Your task to perform on an android device: create a new album in the google photos Image 0: 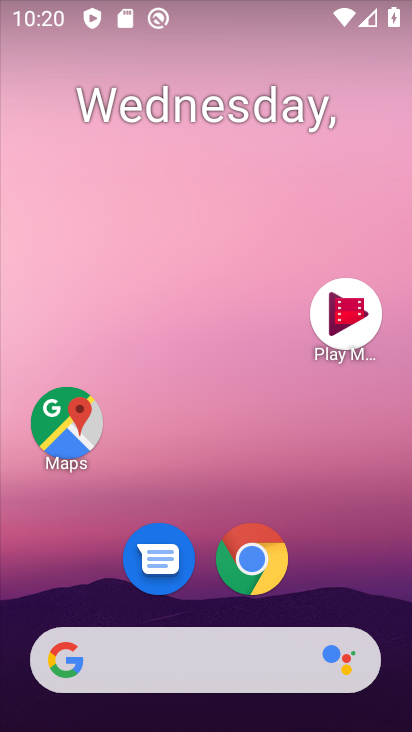
Step 0: drag from (331, 581) to (269, 146)
Your task to perform on an android device: create a new album in the google photos Image 1: 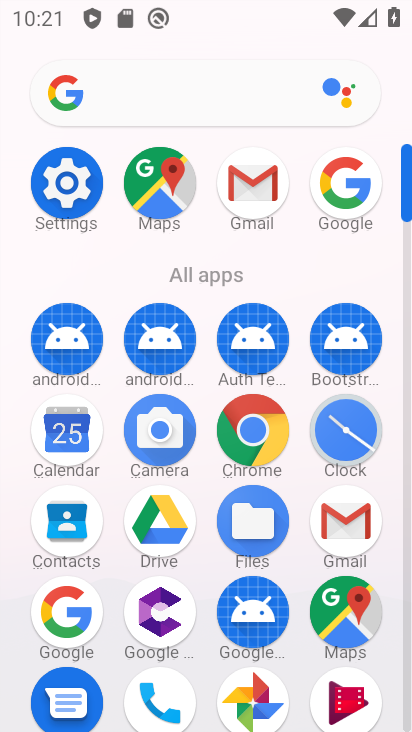
Step 1: click (259, 707)
Your task to perform on an android device: create a new album in the google photos Image 2: 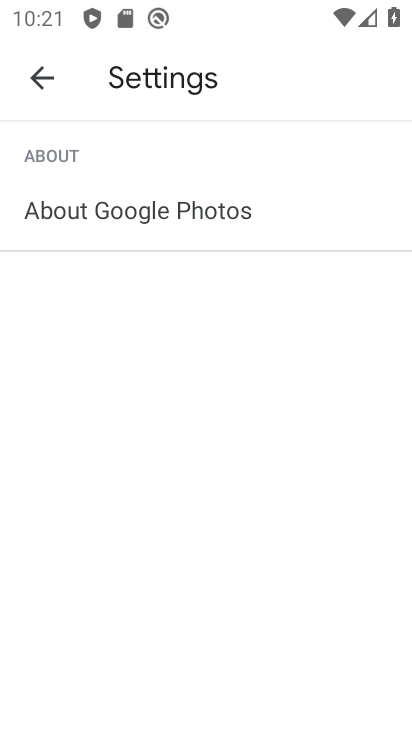
Step 2: click (37, 73)
Your task to perform on an android device: create a new album in the google photos Image 3: 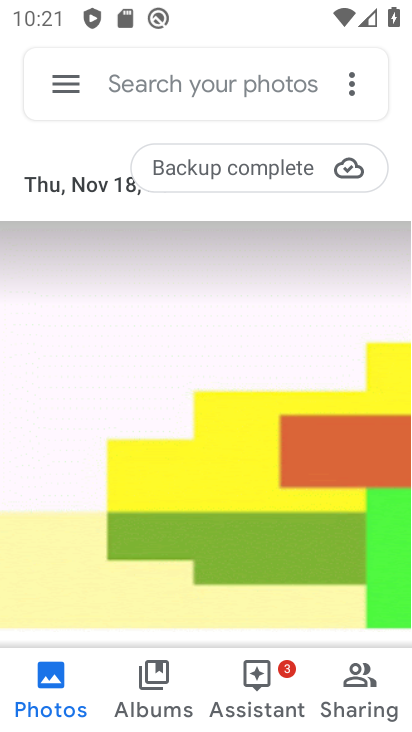
Step 3: click (49, 684)
Your task to perform on an android device: create a new album in the google photos Image 4: 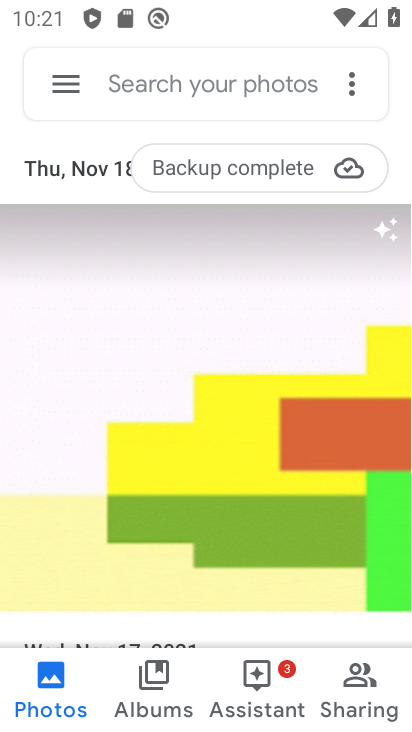
Step 4: click (49, 682)
Your task to perform on an android device: create a new album in the google photos Image 5: 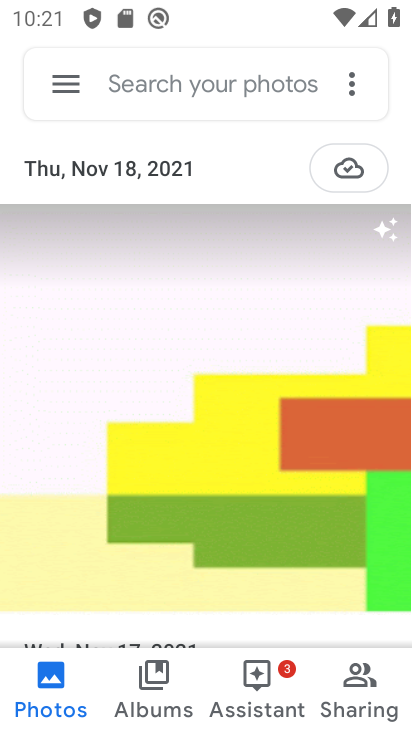
Step 5: click (49, 682)
Your task to perform on an android device: create a new album in the google photos Image 6: 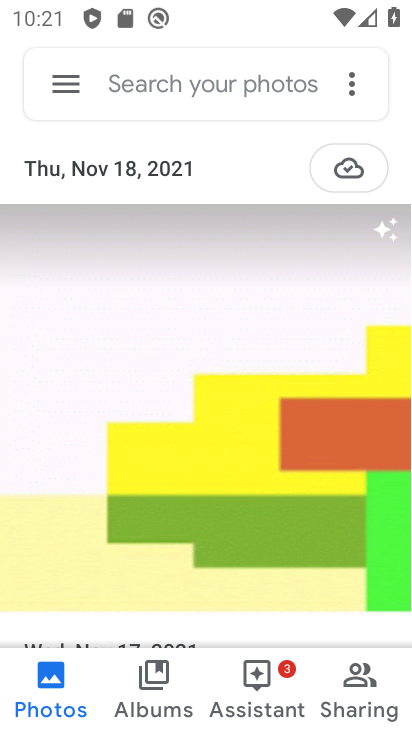
Step 6: drag from (185, 627) to (238, 120)
Your task to perform on an android device: create a new album in the google photos Image 7: 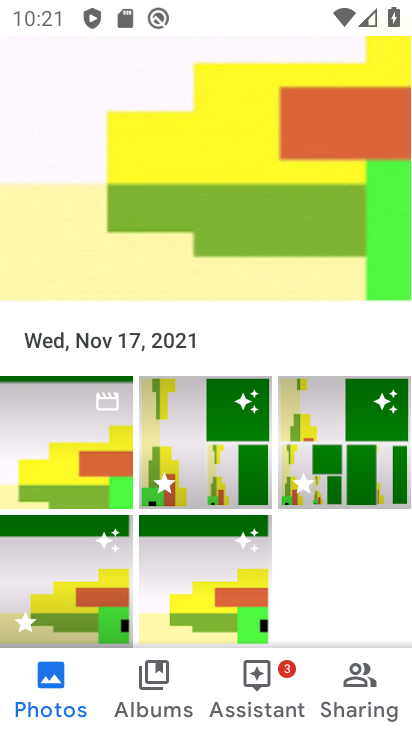
Step 7: click (52, 459)
Your task to perform on an android device: create a new album in the google photos Image 8: 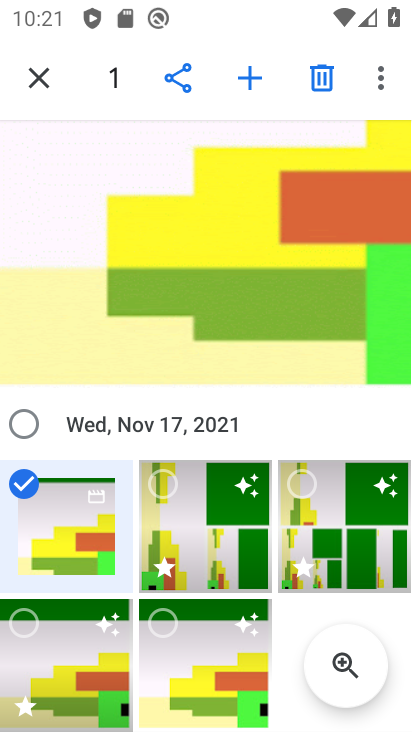
Step 8: click (245, 81)
Your task to perform on an android device: create a new album in the google photos Image 9: 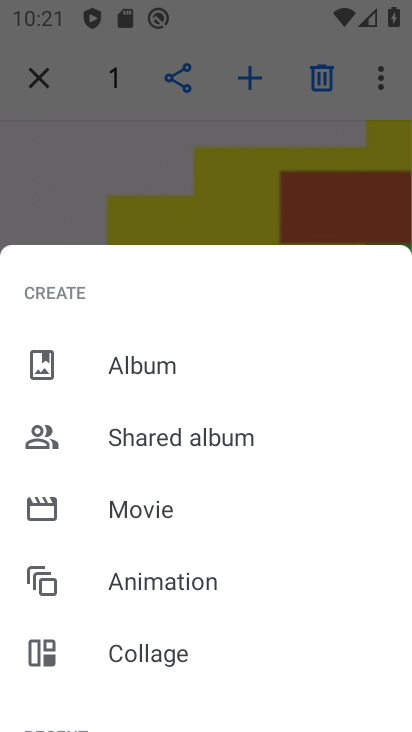
Step 9: click (152, 348)
Your task to perform on an android device: create a new album in the google photos Image 10: 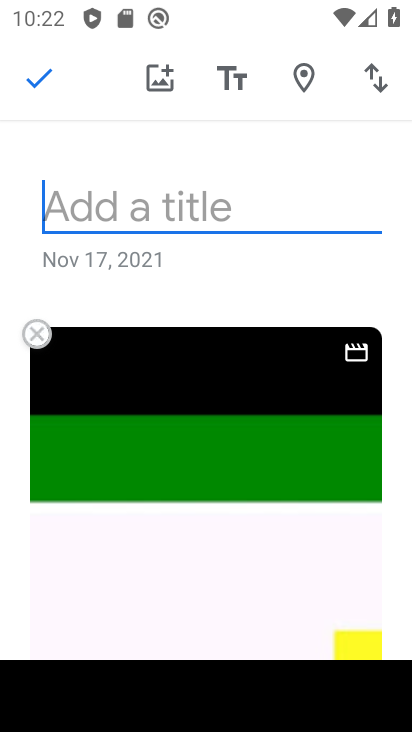
Step 10: type "utfuyfyj"
Your task to perform on an android device: create a new album in the google photos Image 11: 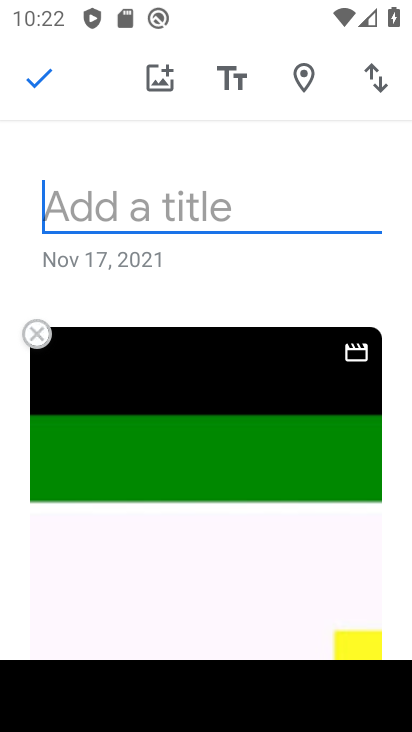
Step 11: click (227, 202)
Your task to perform on an android device: create a new album in the google photos Image 12: 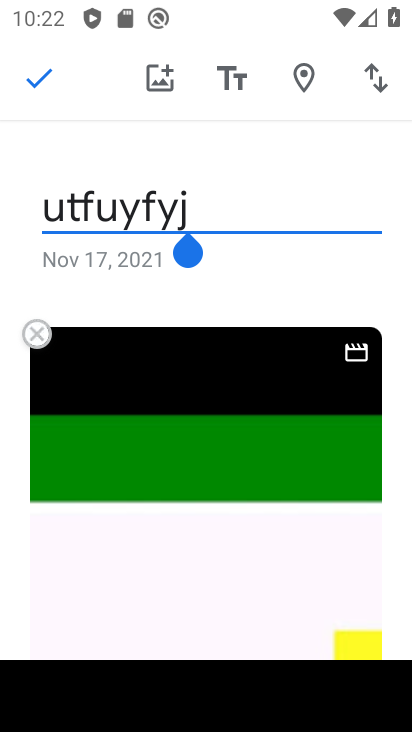
Step 12: click (42, 74)
Your task to perform on an android device: create a new album in the google photos Image 13: 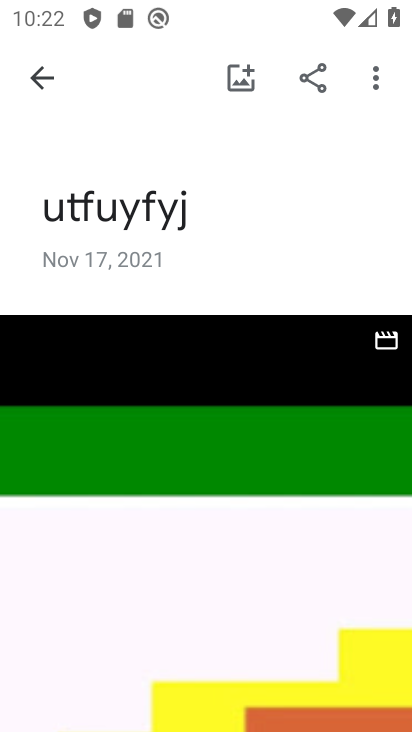
Step 13: task complete